Your task to perform on an android device: delete browsing data in the chrome app Image 0: 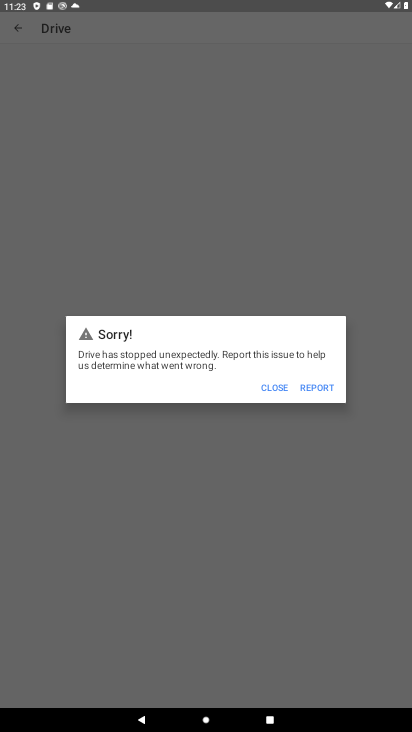
Step 0: press home button
Your task to perform on an android device: delete browsing data in the chrome app Image 1: 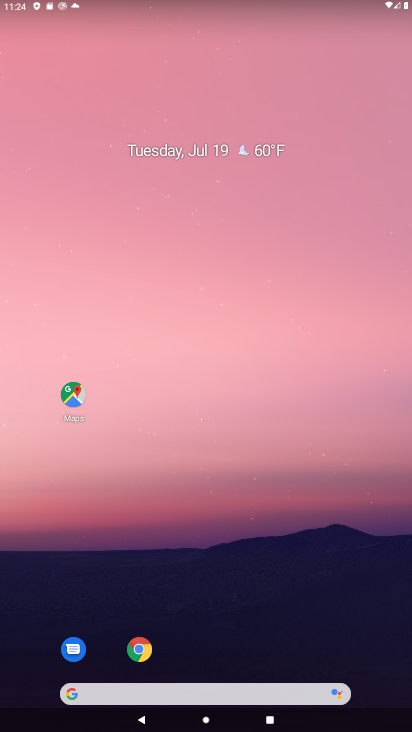
Step 1: click (148, 656)
Your task to perform on an android device: delete browsing data in the chrome app Image 2: 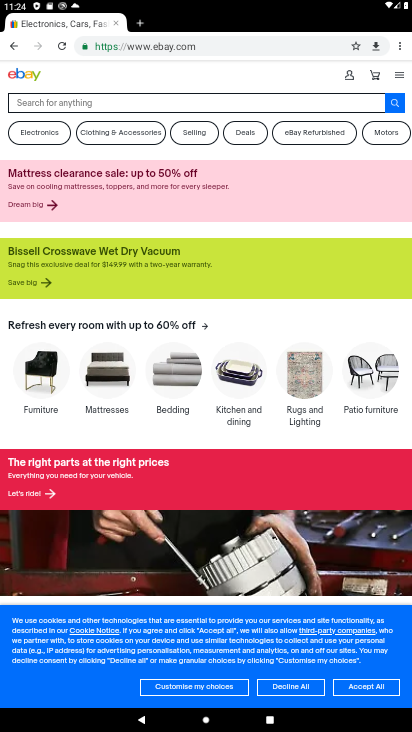
Step 2: drag from (399, 44) to (326, 139)
Your task to perform on an android device: delete browsing data in the chrome app Image 3: 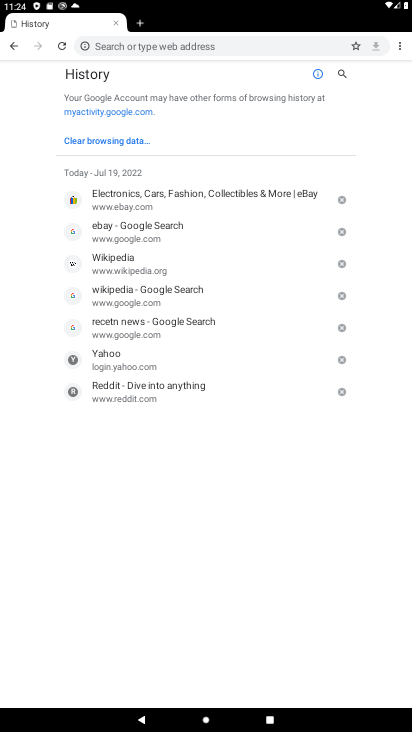
Step 3: click (110, 139)
Your task to perform on an android device: delete browsing data in the chrome app Image 4: 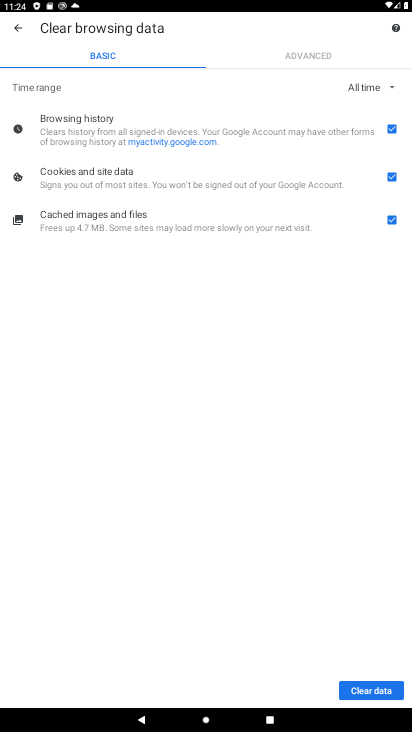
Step 4: click (375, 692)
Your task to perform on an android device: delete browsing data in the chrome app Image 5: 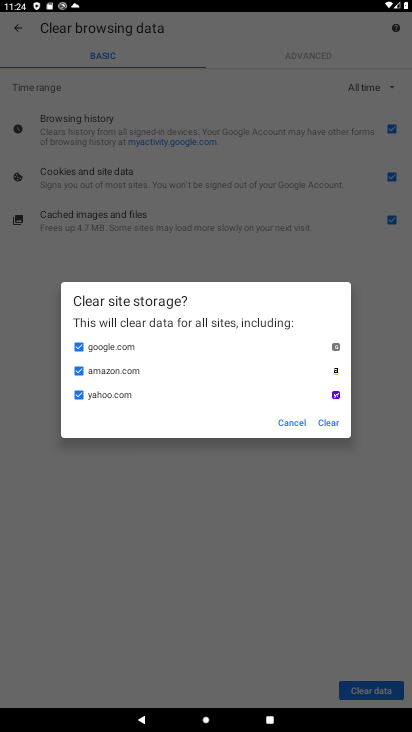
Step 5: click (328, 422)
Your task to perform on an android device: delete browsing data in the chrome app Image 6: 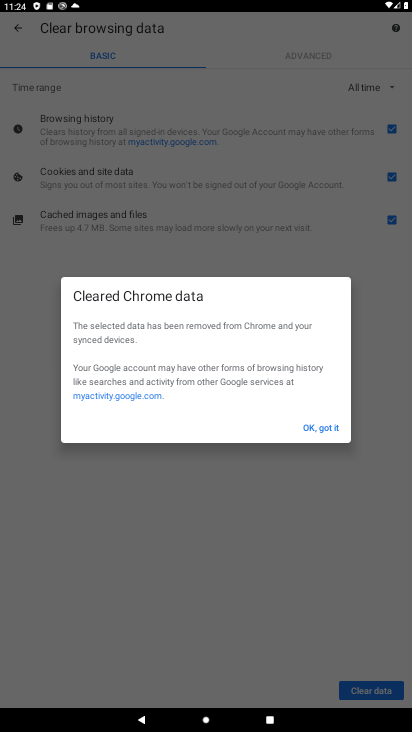
Step 6: click (305, 435)
Your task to perform on an android device: delete browsing data in the chrome app Image 7: 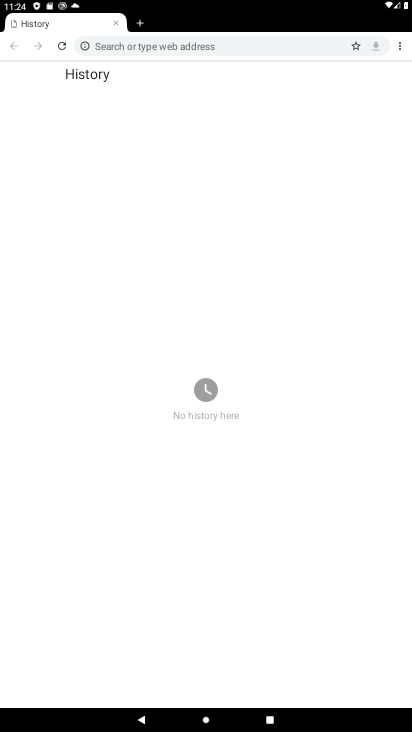
Step 7: task complete